Your task to perform on an android device: turn on airplane mode Image 0: 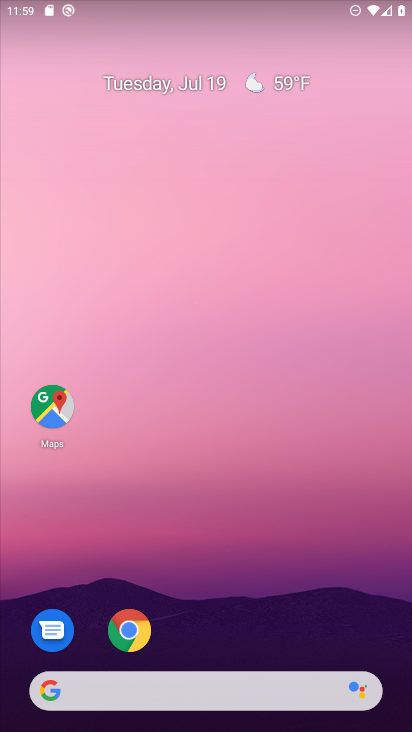
Step 0: drag from (185, 599) to (226, 0)
Your task to perform on an android device: turn on airplane mode Image 1: 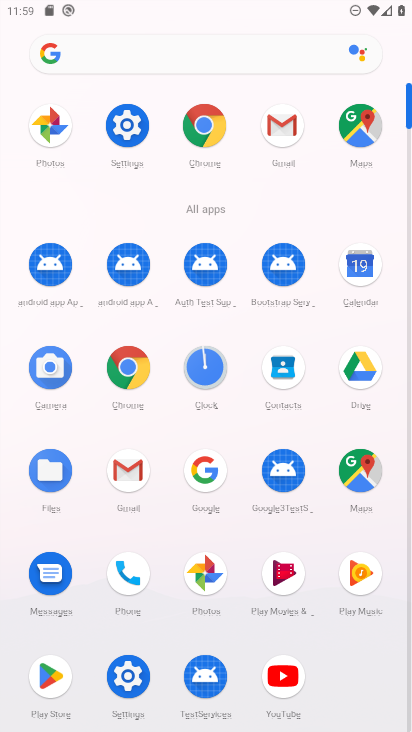
Step 1: click (124, 131)
Your task to perform on an android device: turn on airplane mode Image 2: 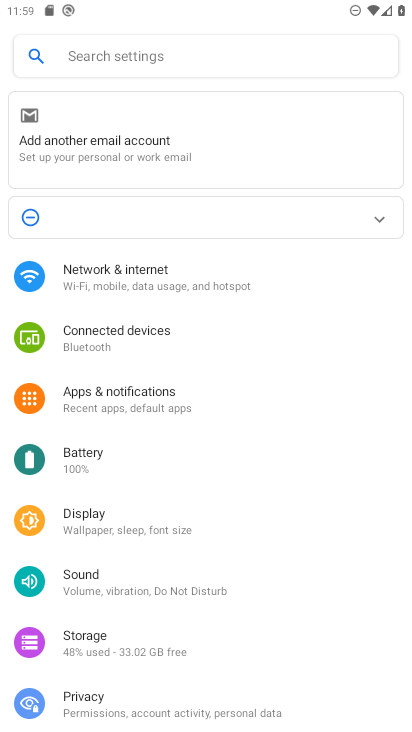
Step 2: click (215, 284)
Your task to perform on an android device: turn on airplane mode Image 3: 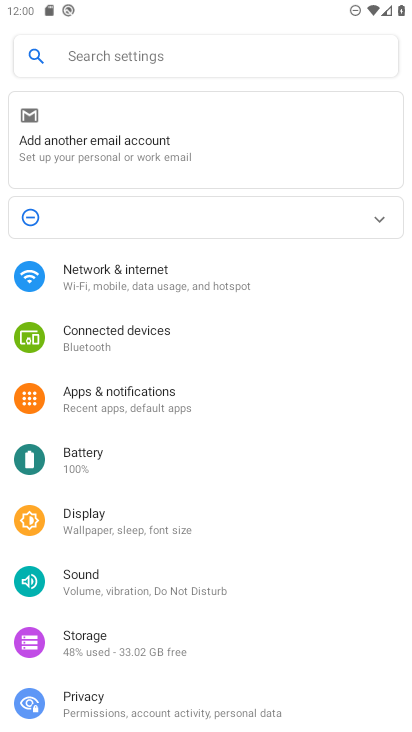
Step 3: click (215, 284)
Your task to perform on an android device: turn on airplane mode Image 4: 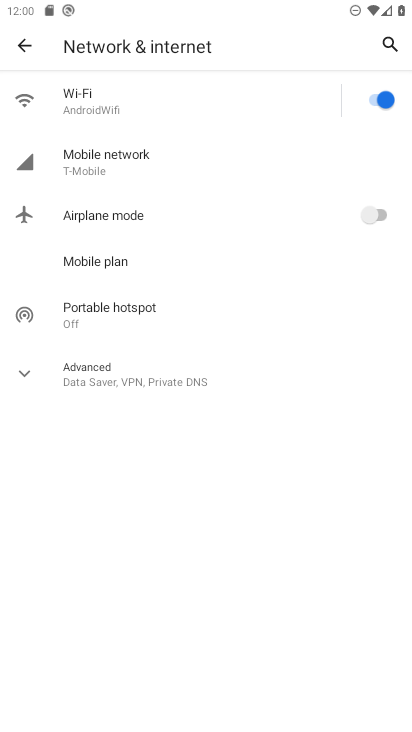
Step 4: click (378, 212)
Your task to perform on an android device: turn on airplane mode Image 5: 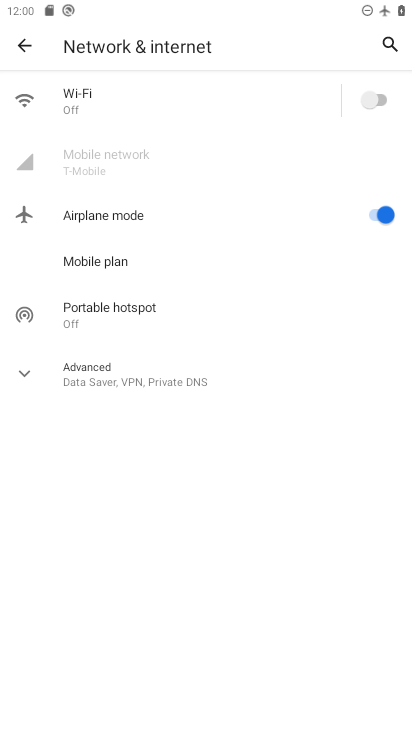
Step 5: task complete